Your task to perform on an android device: Open calendar and show me the first week of next month Image 0: 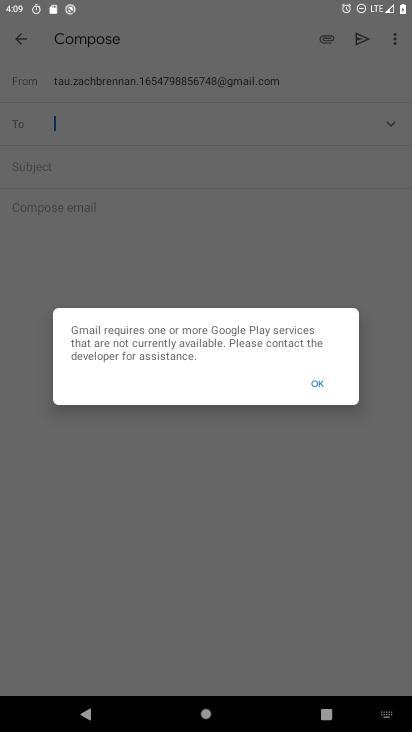
Step 0: press home button
Your task to perform on an android device: Open calendar and show me the first week of next month Image 1: 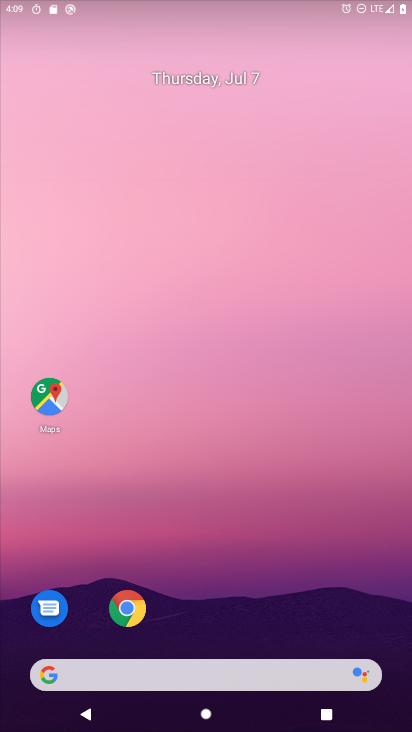
Step 1: drag from (221, 701) to (214, 189)
Your task to perform on an android device: Open calendar and show me the first week of next month Image 2: 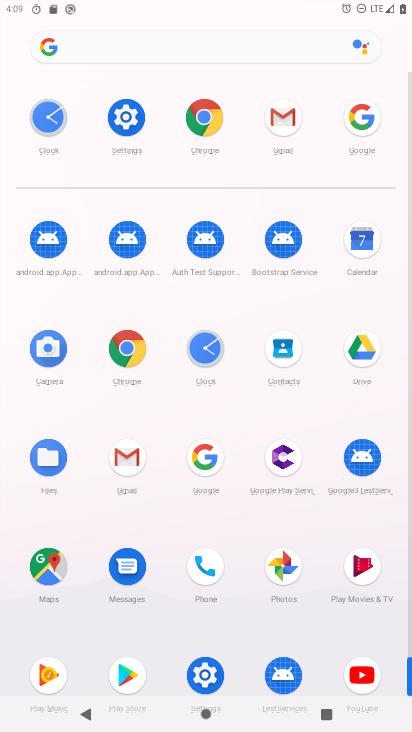
Step 2: click (365, 241)
Your task to perform on an android device: Open calendar and show me the first week of next month Image 3: 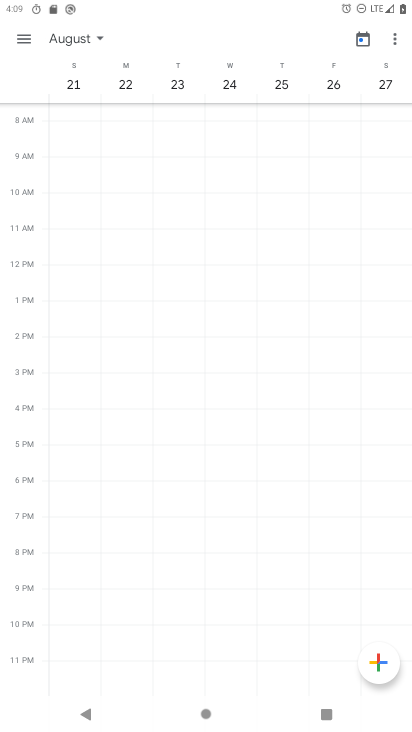
Step 3: click (96, 38)
Your task to perform on an android device: Open calendar and show me the first week of next month Image 4: 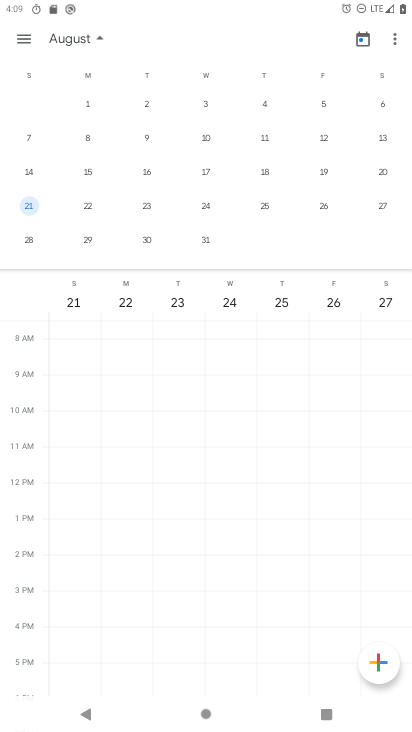
Step 4: click (88, 100)
Your task to perform on an android device: Open calendar and show me the first week of next month Image 5: 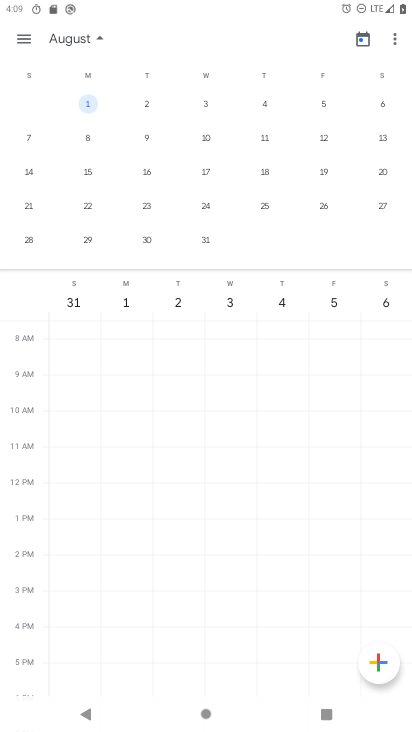
Step 5: click (29, 36)
Your task to perform on an android device: Open calendar and show me the first week of next month Image 6: 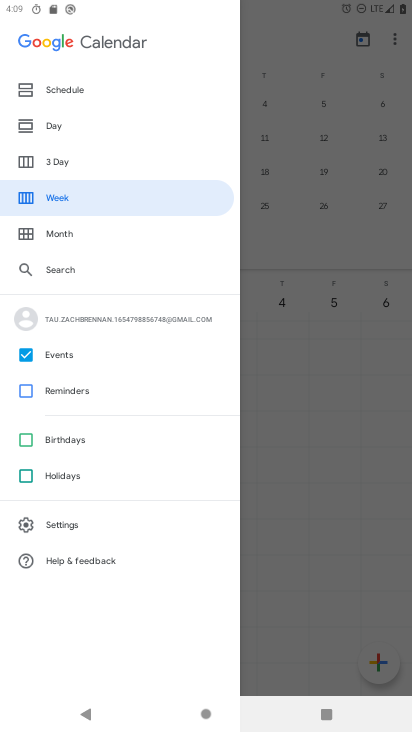
Step 6: click (63, 199)
Your task to perform on an android device: Open calendar and show me the first week of next month Image 7: 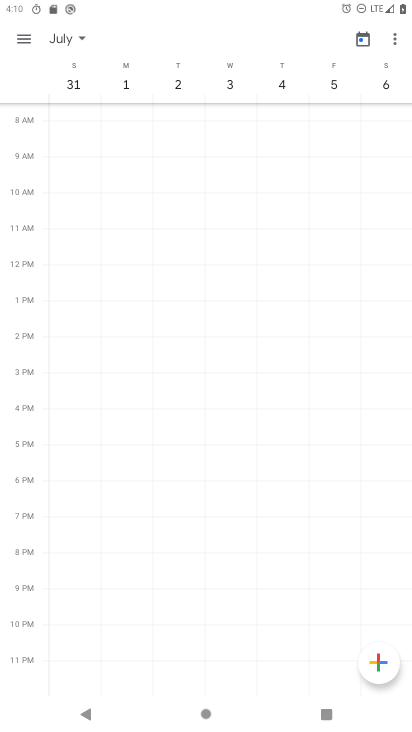
Step 7: task complete